Your task to perform on an android device: open app "Skype" Image 0: 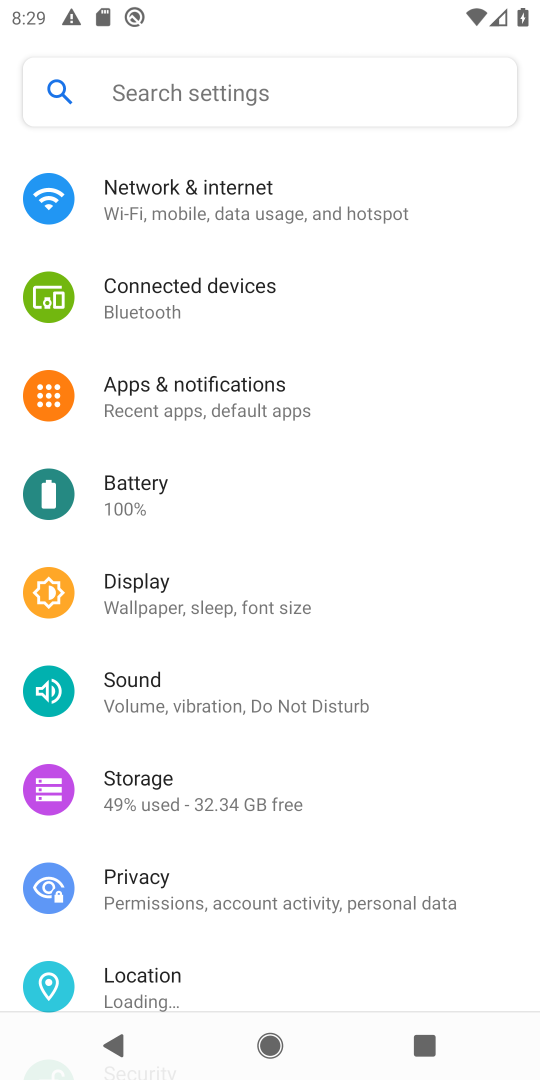
Step 0: press home button
Your task to perform on an android device: open app "Skype" Image 1: 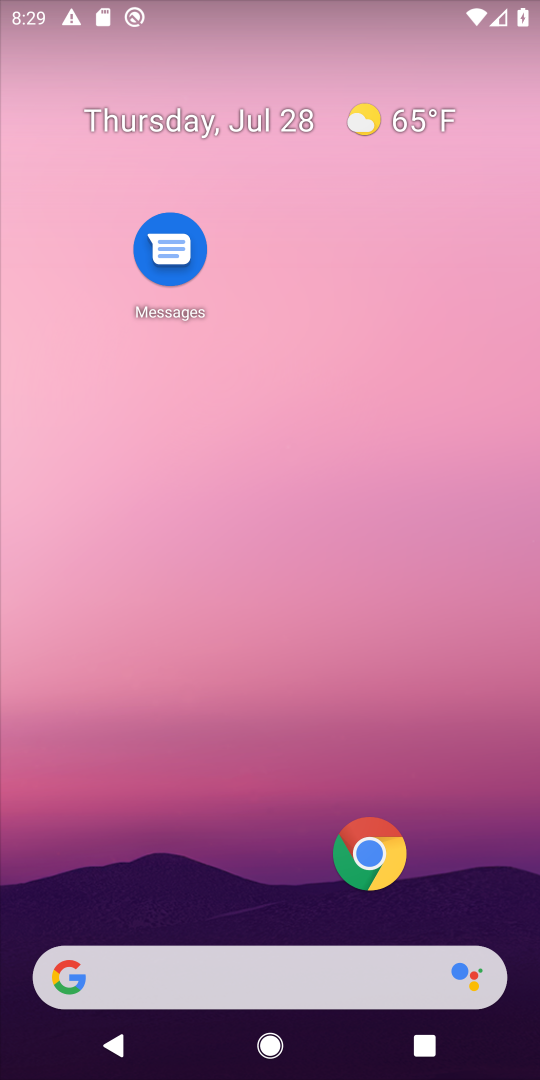
Step 1: drag from (199, 271) to (345, 185)
Your task to perform on an android device: open app "Skype" Image 2: 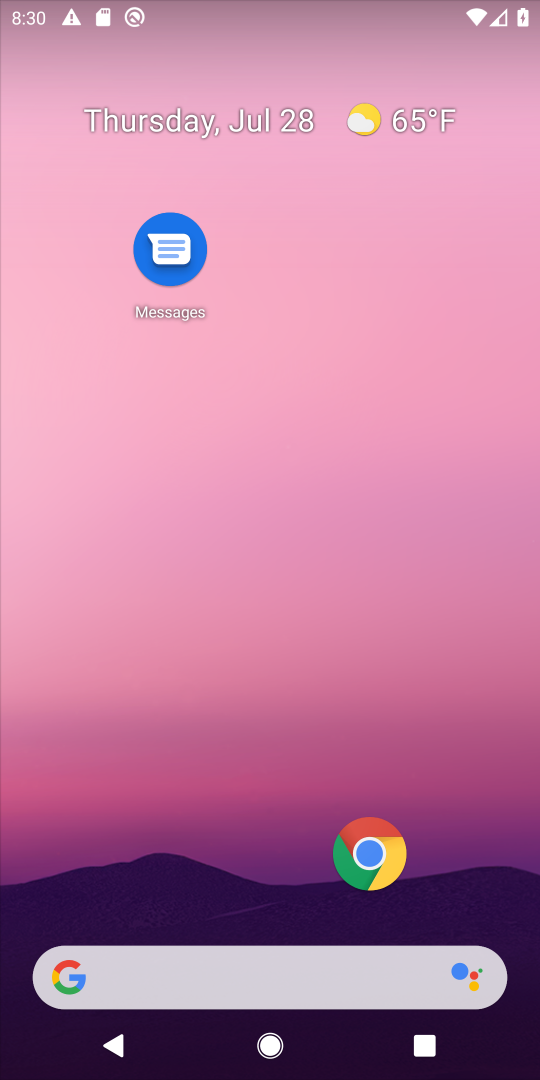
Step 2: drag from (218, 830) to (218, 272)
Your task to perform on an android device: open app "Skype" Image 3: 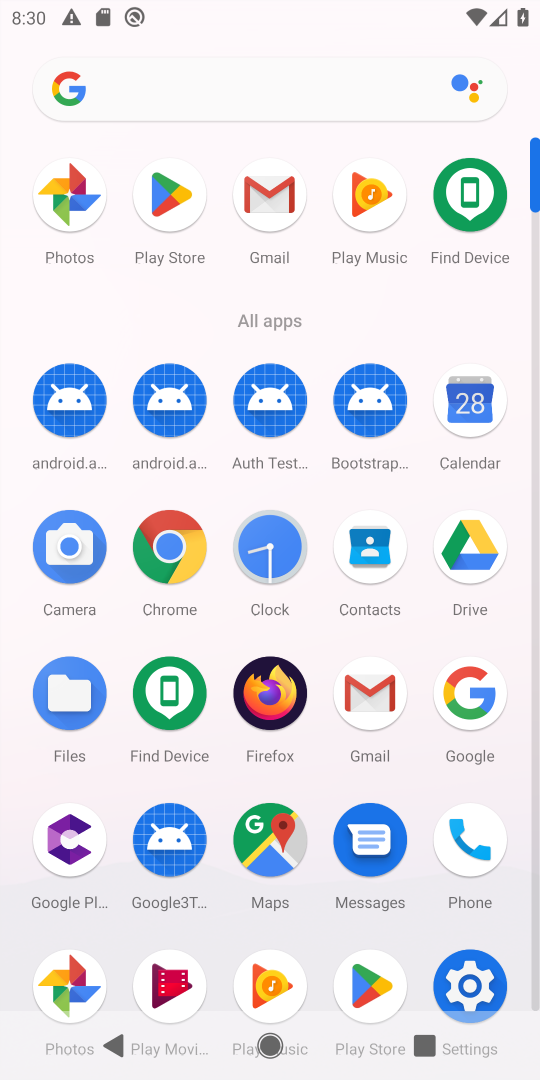
Step 3: click (187, 186)
Your task to perform on an android device: open app "Skype" Image 4: 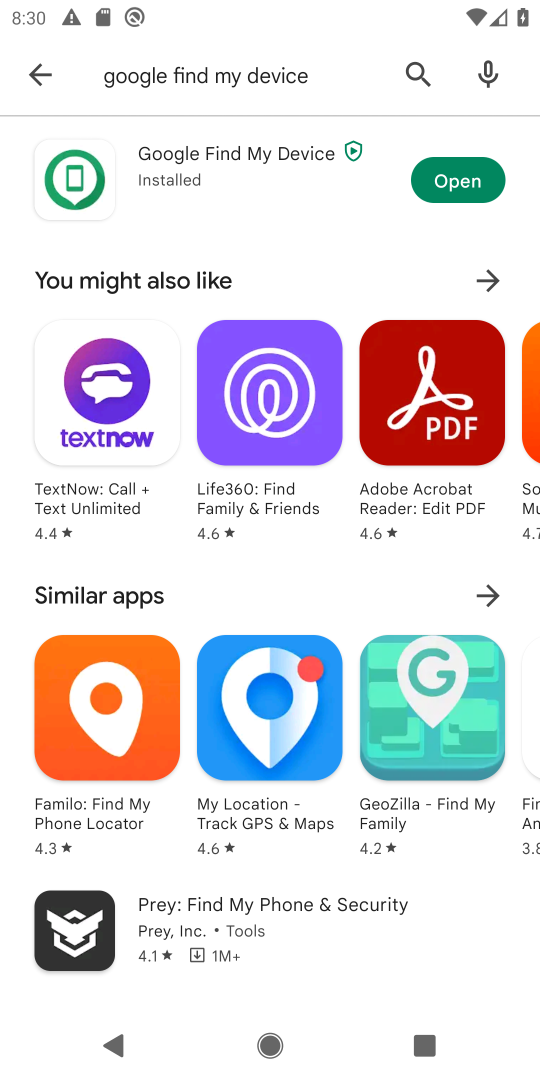
Step 4: click (36, 68)
Your task to perform on an android device: open app "Skype" Image 5: 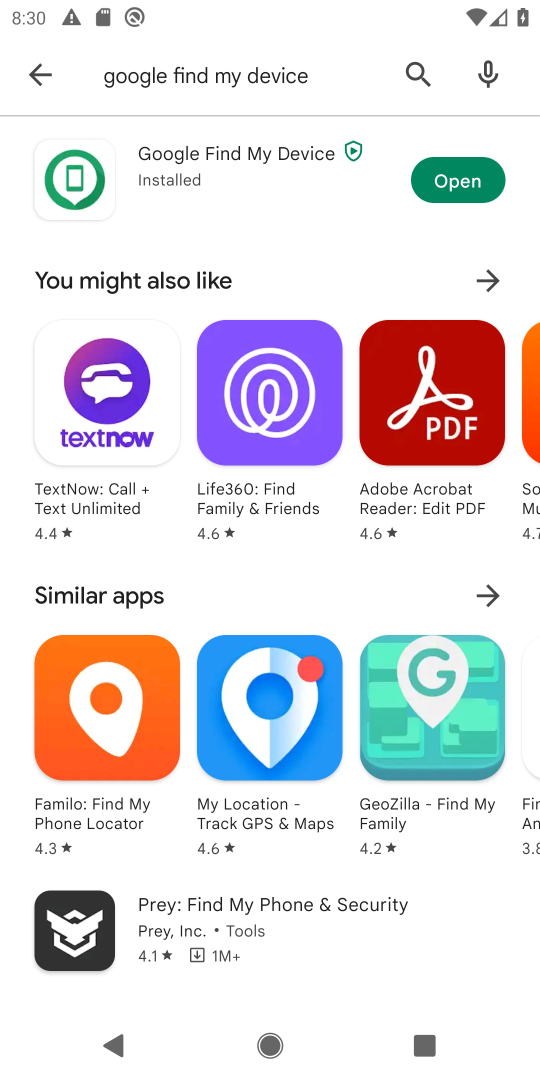
Step 5: click (38, 82)
Your task to perform on an android device: open app "Skype" Image 6: 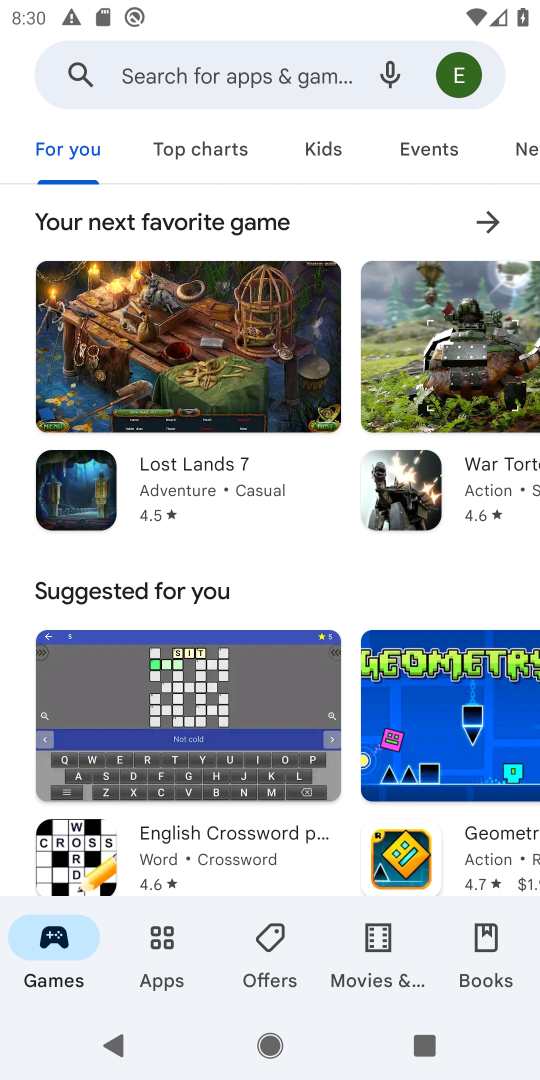
Step 6: click (160, 81)
Your task to perform on an android device: open app "Skype" Image 7: 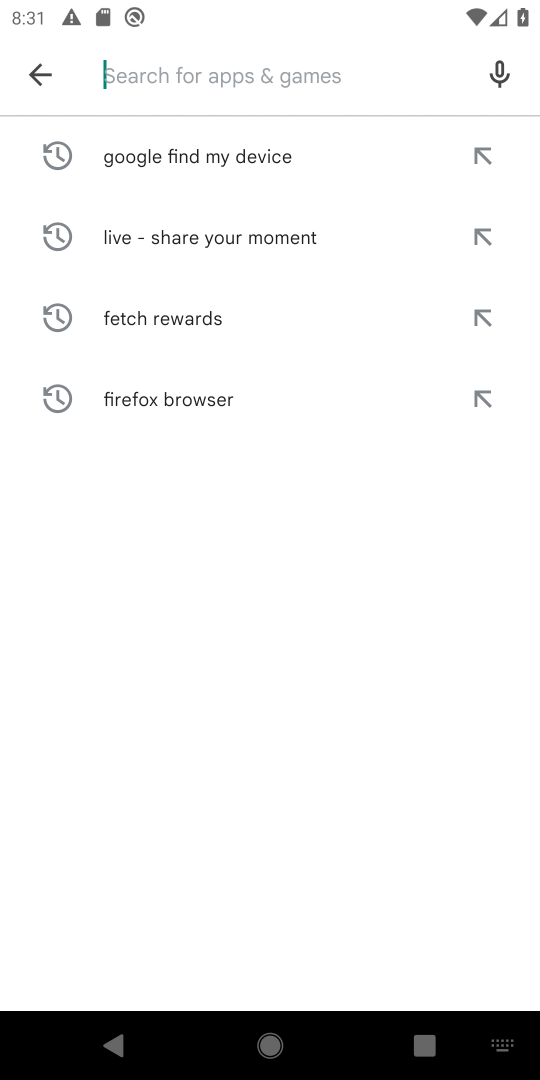
Step 7: type "skype"
Your task to perform on an android device: open app "Skype" Image 8: 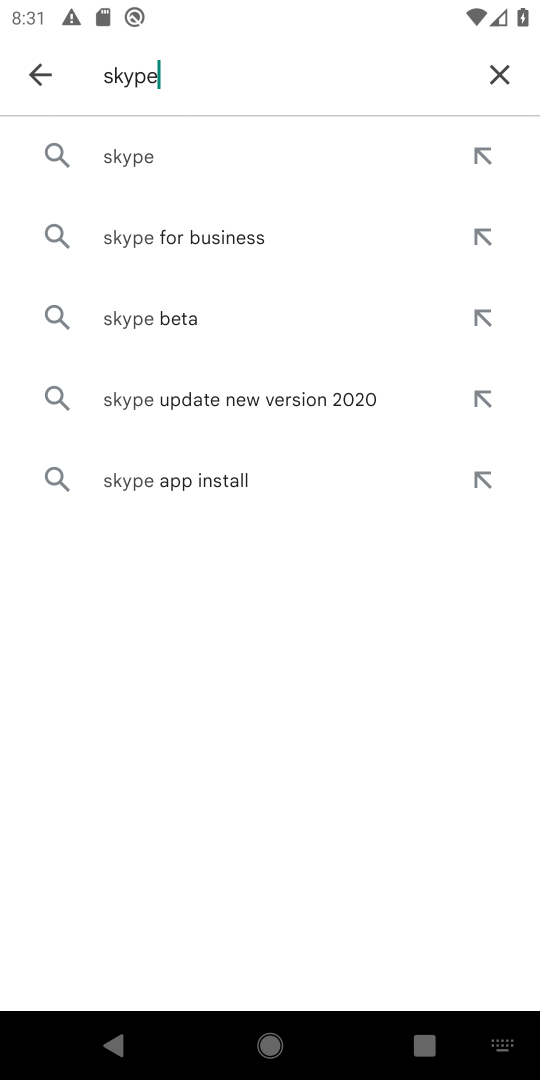
Step 8: click (113, 160)
Your task to perform on an android device: open app "Skype" Image 9: 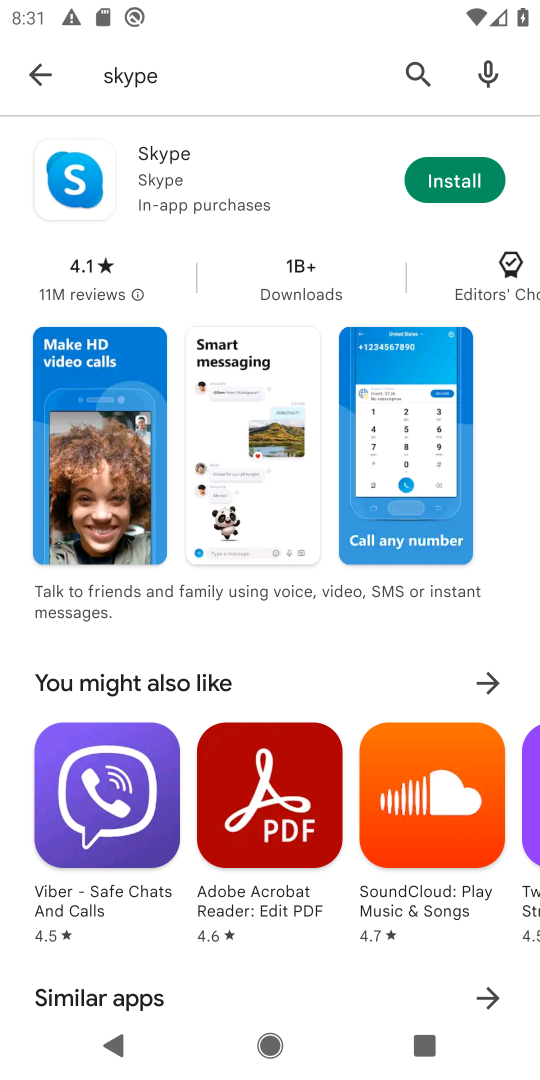
Step 9: click (423, 182)
Your task to perform on an android device: open app "Skype" Image 10: 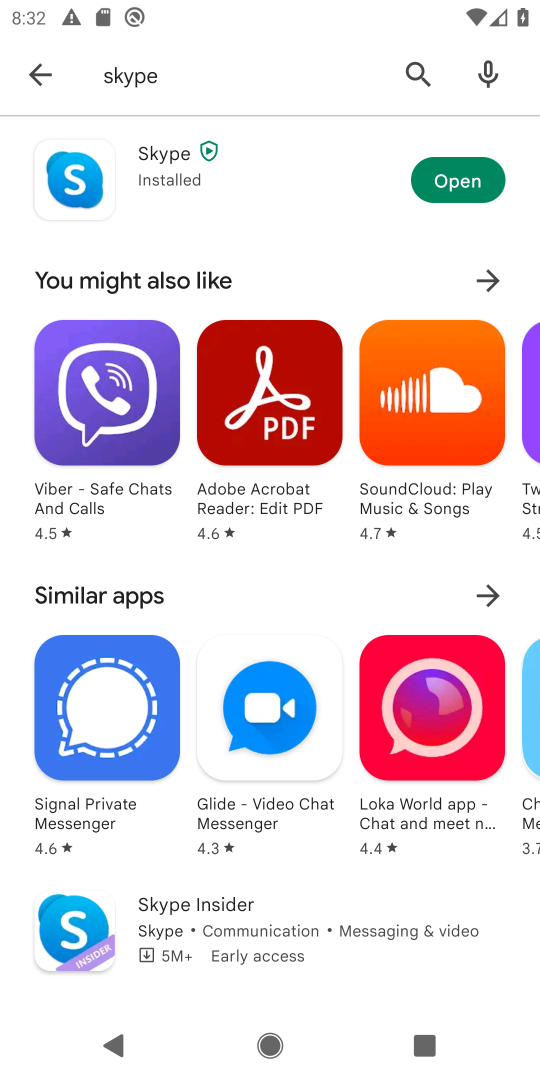
Step 10: click (447, 182)
Your task to perform on an android device: open app "Skype" Image 11: 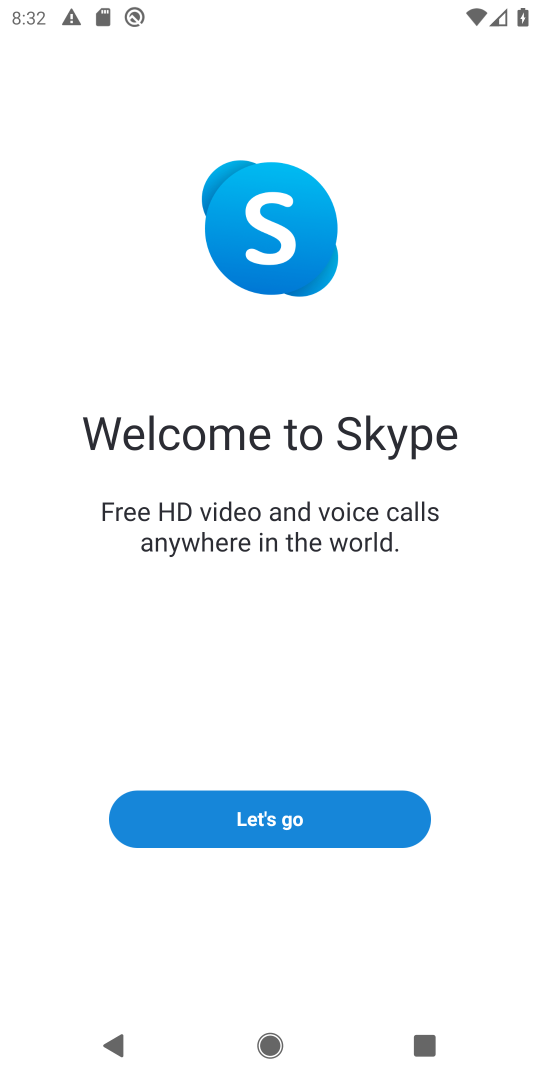
Step 11: task complete